Your task to perform on an android device: show emergency info Image 0: 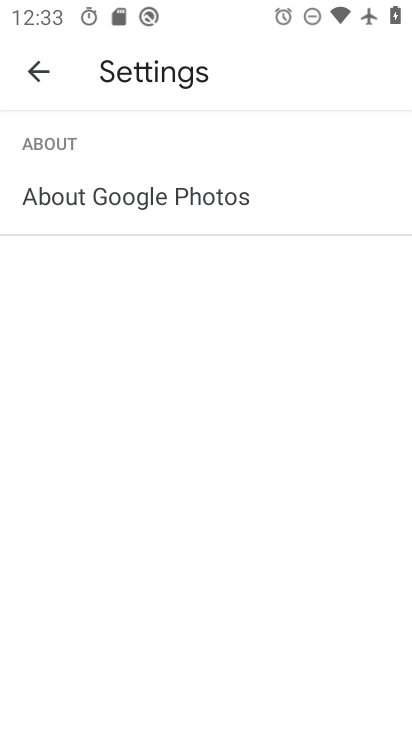
Step 0: press home button
Your task to perform on an android device: show emergency info Image 1: 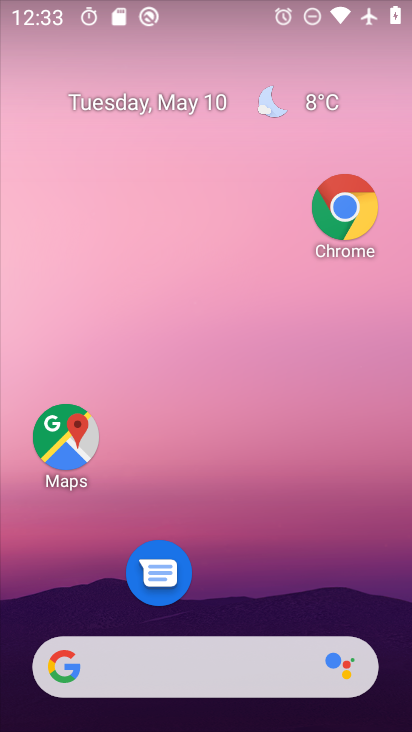
Step 1: drag from (328, 539) to (296, 110)
Your task to perform on an android device: show emergency info Image 2: 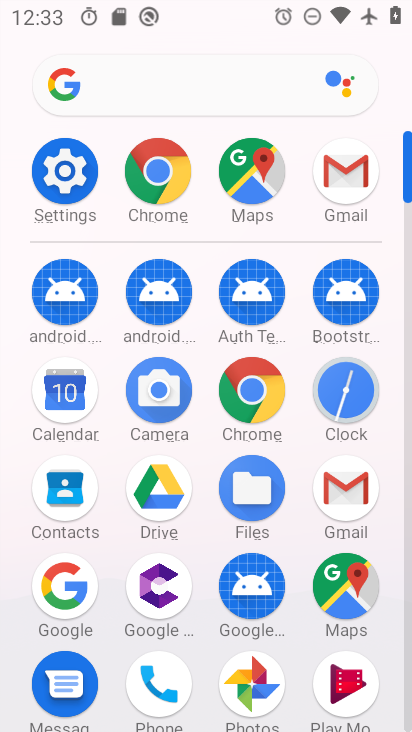
Step 2: click (69, 170)
Your task to perform on an android device: show emergency info Image 3: 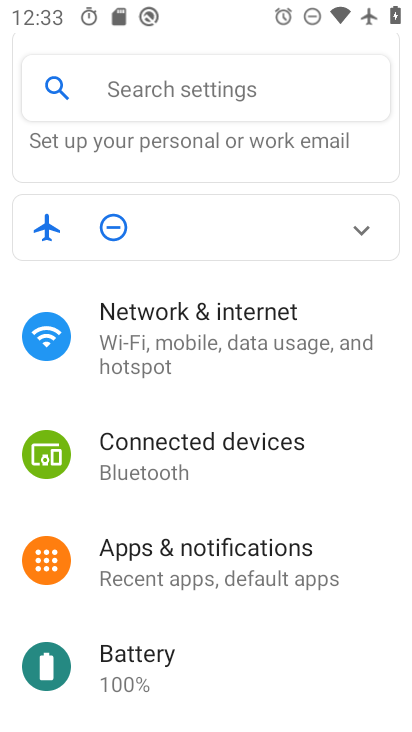
Step 3: drag from (302, 651) to (248, 117)
Your task to perform on an android device: show emergency info Image 4: 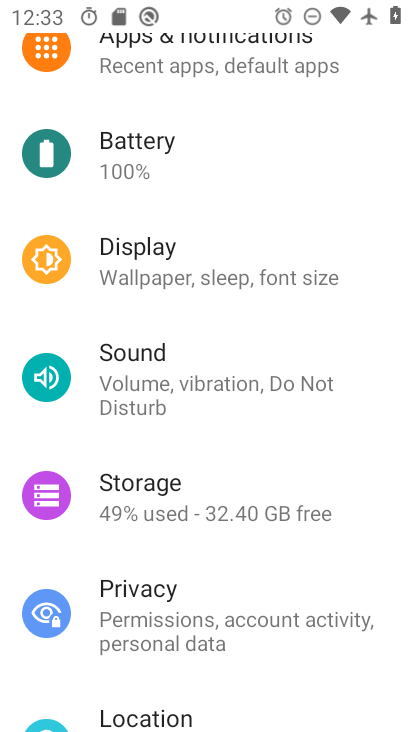
Step 4: drag from (306, 655) to (247, 132)
Your task to perform on an android device: show emergency info Image 5: 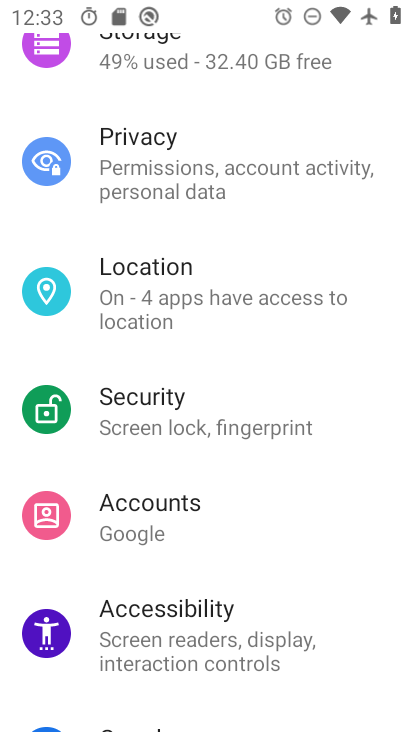
Step 5: drag from (258, 619) to (225, 38)
Your task to perform on an android device: show emergency info Image 6: 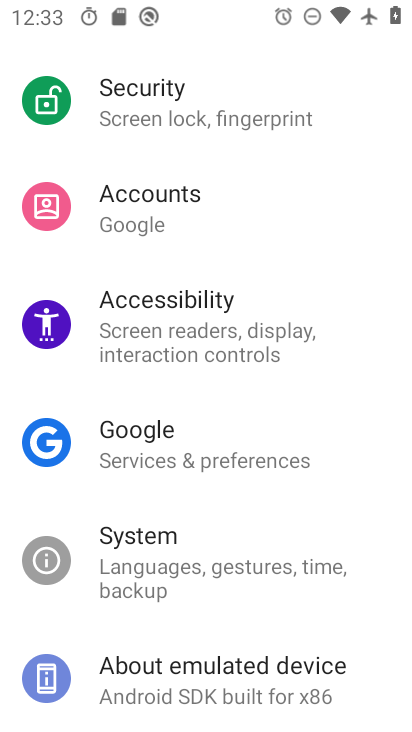
Step 6: click (202, 669)
Your task to perform on an android device: show emergency info Image 7: 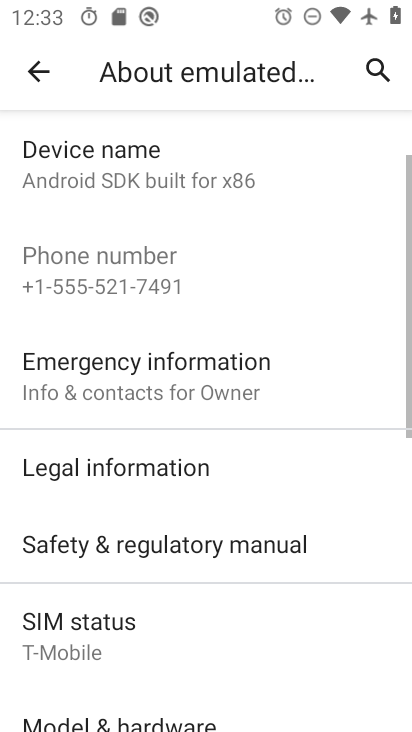
Step 7: click (175, 373)
Your task to perform on an android device: show emergency info Image 8: 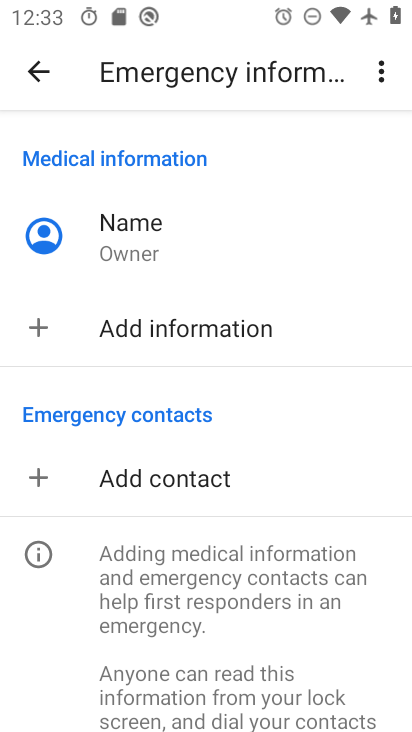
Step 8: task complete